Your task to perform on an android device: What's the weather going to be this weekend? Image 0: 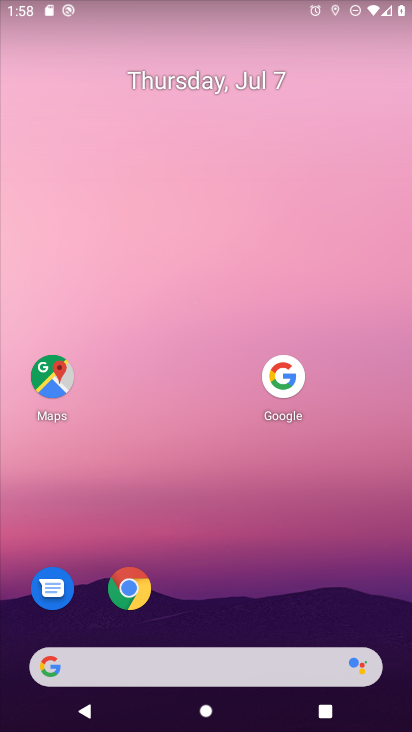
Step 0: click (185, 668)
Your task to perform on an android device: What's the weather going to be this weekend? Image 1: 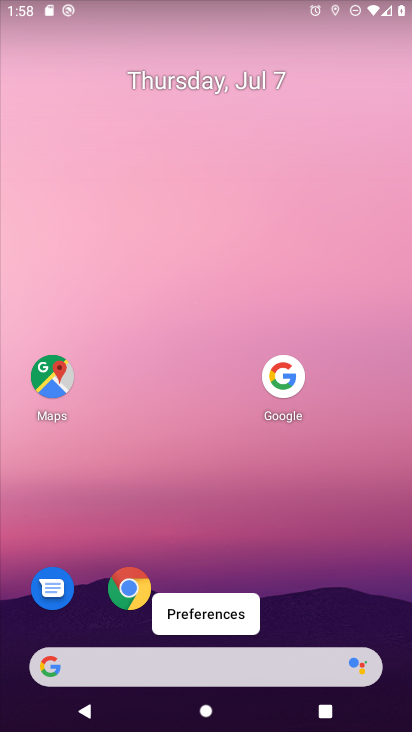
Step 1: click (187, 654)
Your task to perform on an android device: What's the weather going to be this weekend? Image 2: 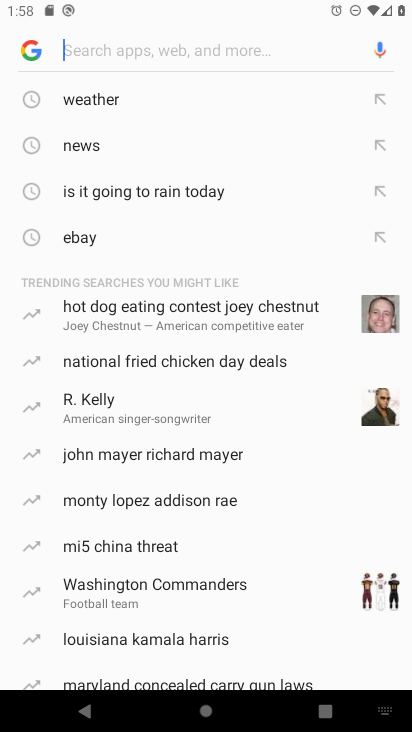
Step 2: drag from (202, 591) to (262, 324)
Your task to perform on an android device: What's the weather going to be this weekend? Image 3: 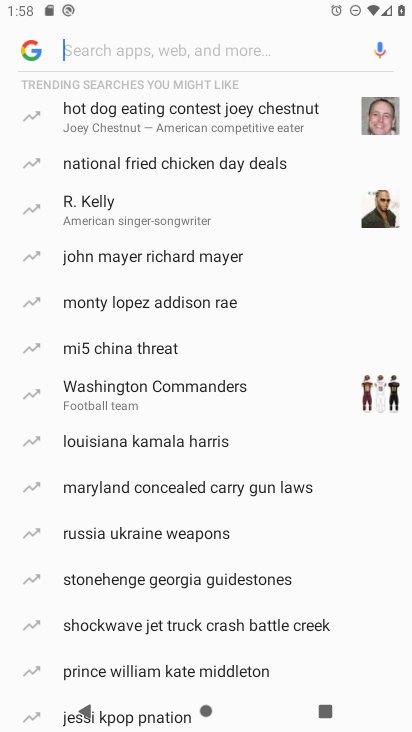
Step 3: type "weather going to be this weekend"
Your task to perform on an android device: What's the weather going to be this weekend? Image 4: 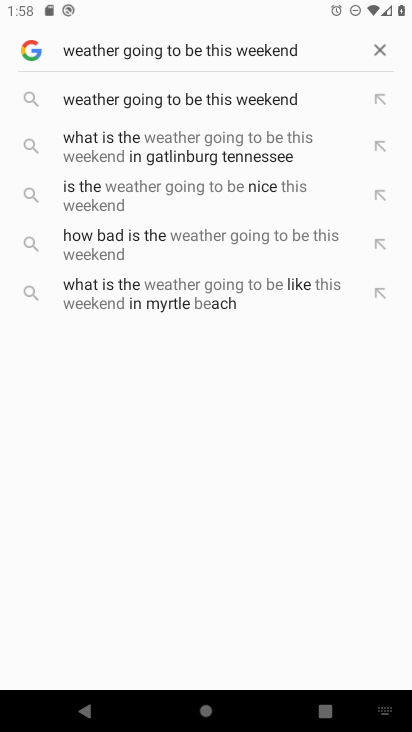
Step 4: click (241, 94)
Your task to perform on an android device: What's the weather going to be this weekend? Image 5: 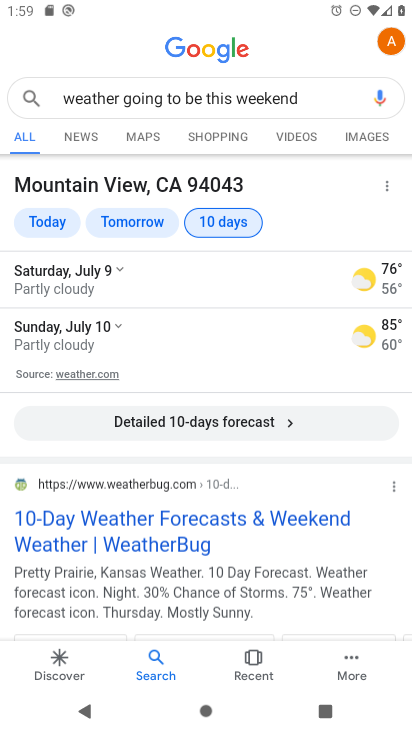
Step 5: click (212, 221)
Your task to perform on an android device: What's the weather going to be this weekend? Image 6: 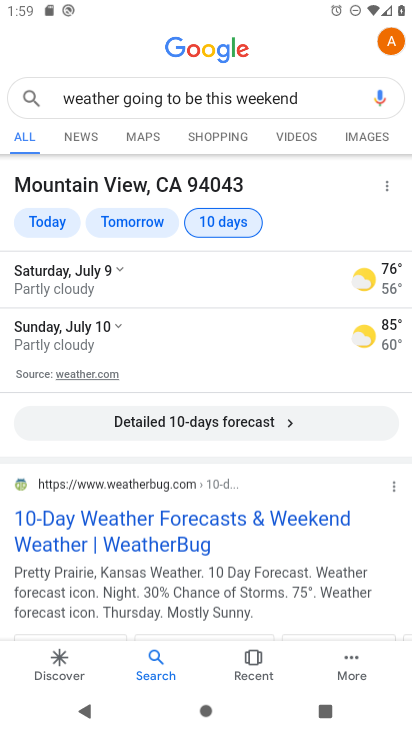
Step 6: task complete